Your task to perform on an android device: Open the calendar app, open the side menu, and click the "Day" option Image 0: 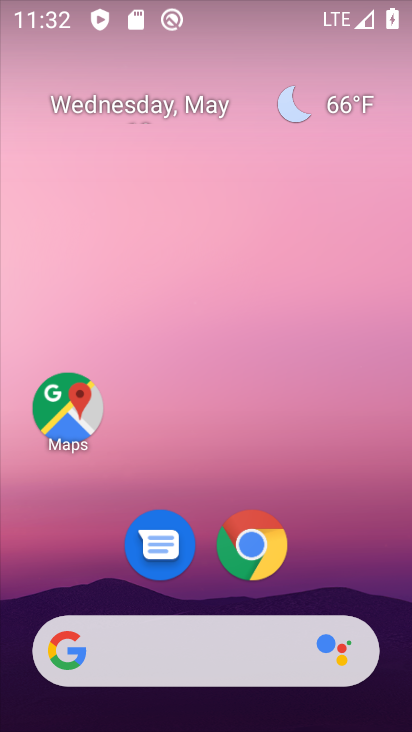
Step 0: drag from (244, 383) to (270, 71)
Your task to perform on an android device: Open the calendar app, open the side menu, and click the "Day" option Image 1: 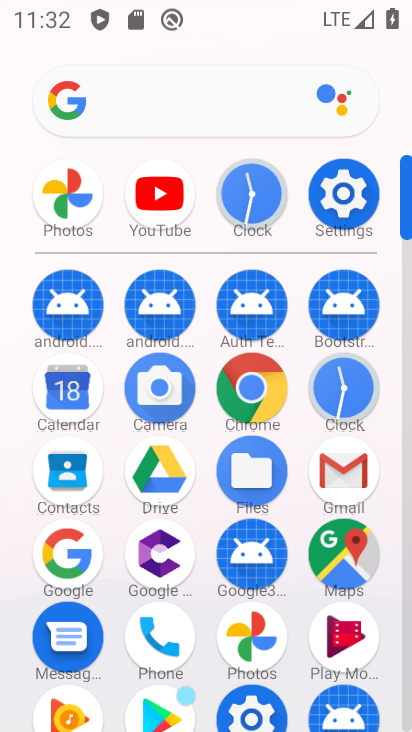
Step 1: click (72, 372)
Your task to perform on an android device: Open the calendar app, open the side menu, and click the "Day" option Image 2: 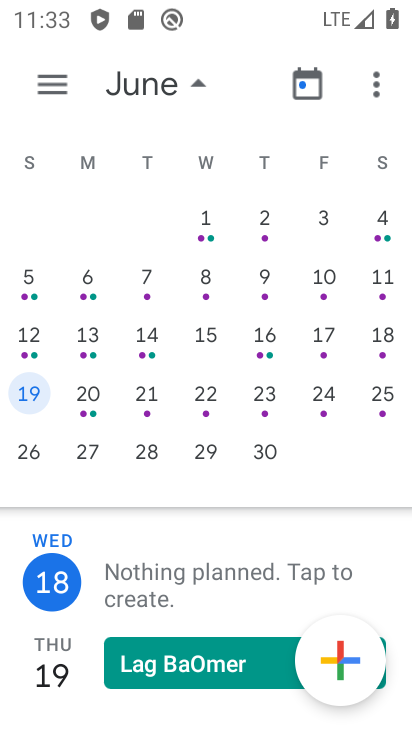
Step 2: click (46, 77)
Your task to perform on an android device: Open the calendar app, open the side menu, and click the "Day" option Image 3: 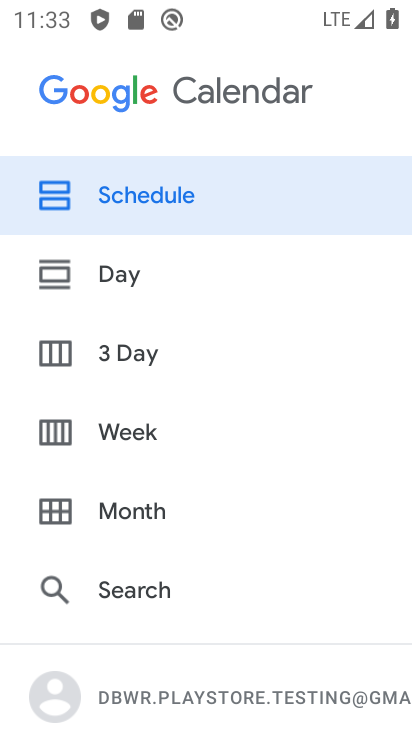
Step 3: click (134, 279)
Your task to perform on an android device: Open the calendar app, open the side menu, and click the "Day" option Image 4: 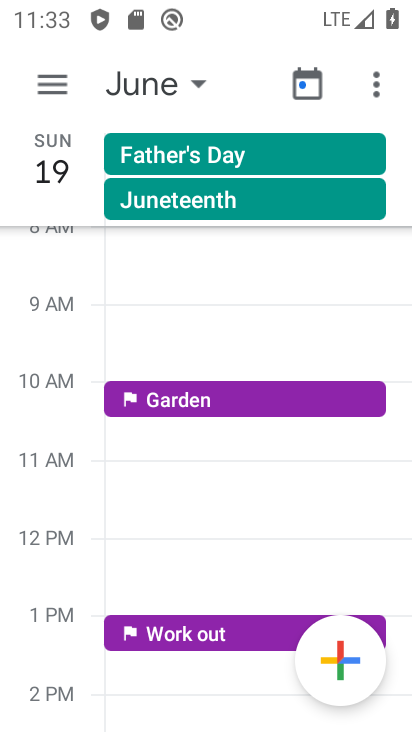
Step 4: task complete